Your task to perform on an android device: Show me a list of home improvement items on the Home Depot website. Image 0: 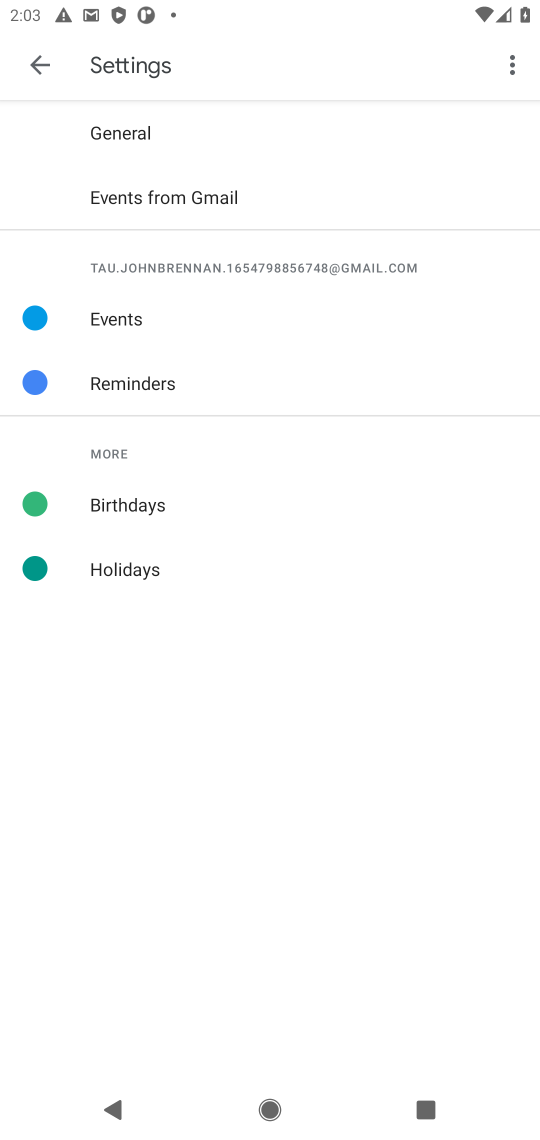
Step 0: press home button
Your task to perform on an android device: Show me a list of home improvement items on the Home Depot website. Image 1: 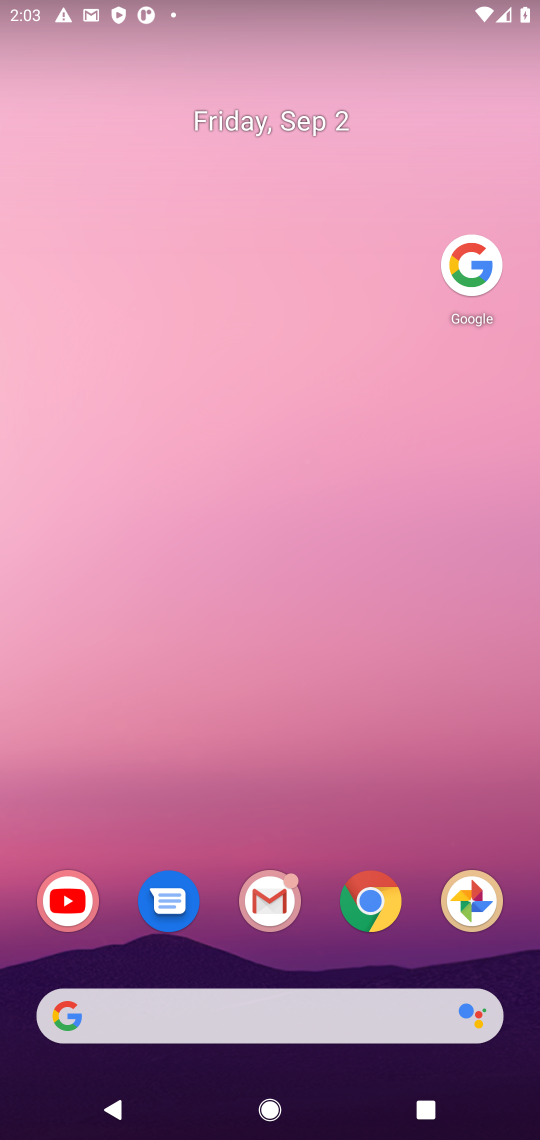
Step 1: drag from (213, 946) to (177, 314)
Your task to perform on an android device: Show me a list of home improvement items on the Home Depot website. Image 2: 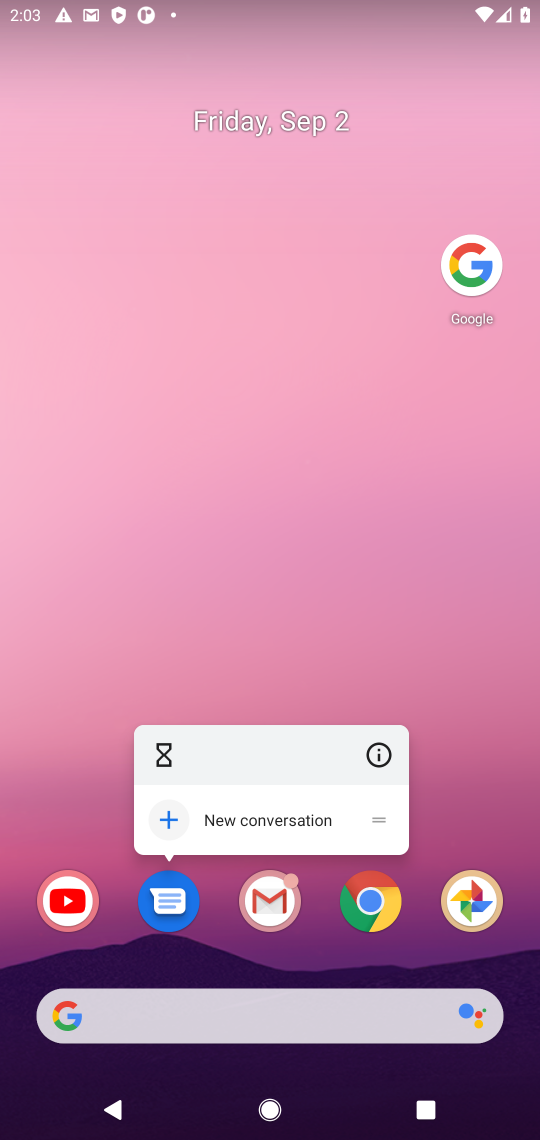
Step 2: click (480, 256)
Your task to perform on an android device: Show me a list of home improvement items on the Home Depot website. Image 3: 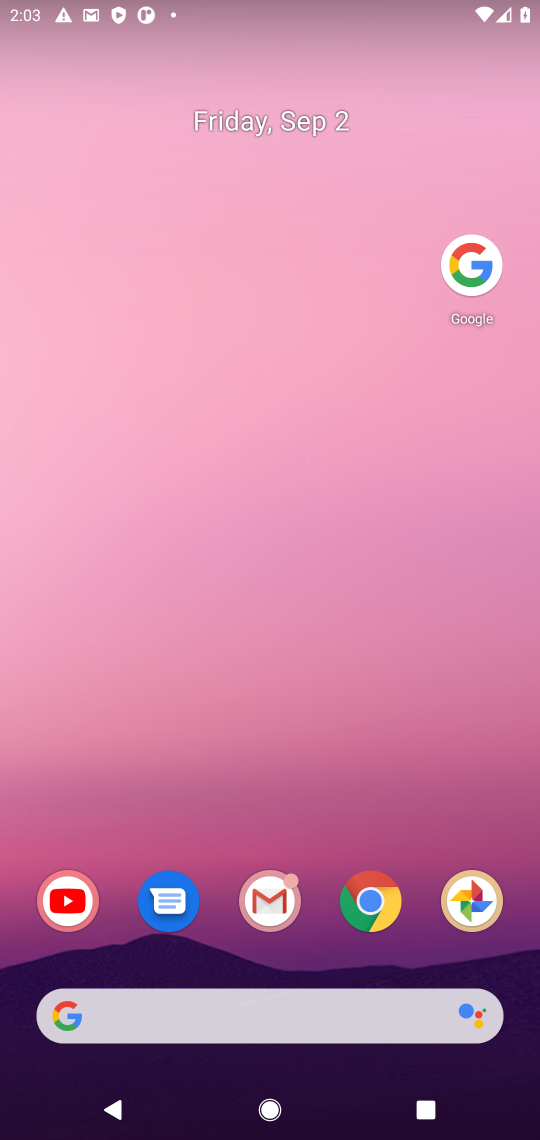
Step 3: click (472, 244)
Your task to perform on an android device: Show me a list of home improvement items on the Home Depot website. Image 4: 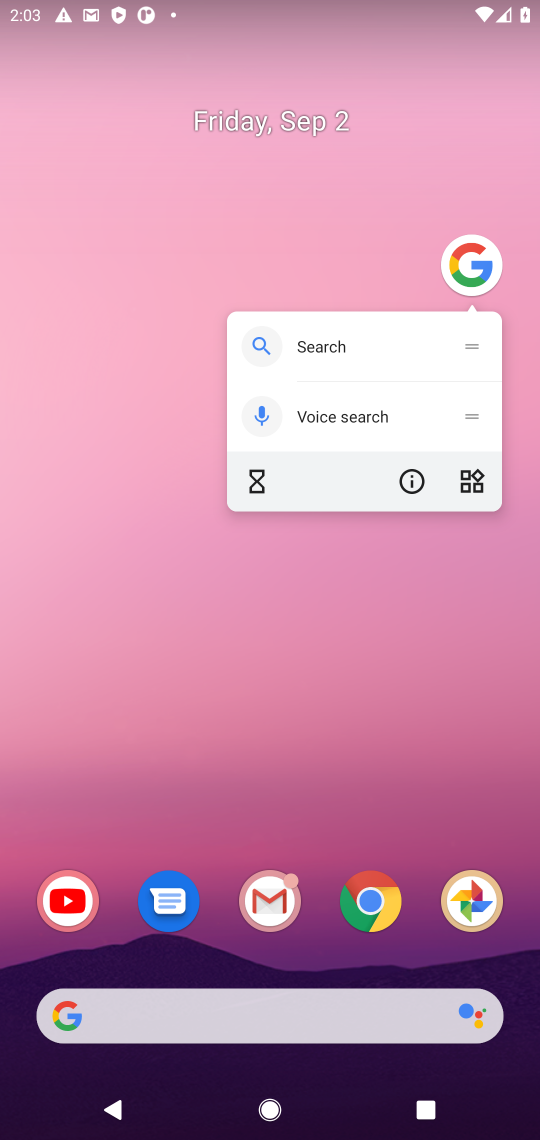
Step 4: click (472, 249)
Your task to perform on an android device: Show me a list of home improvement items on the Home Depot website. Image 5: 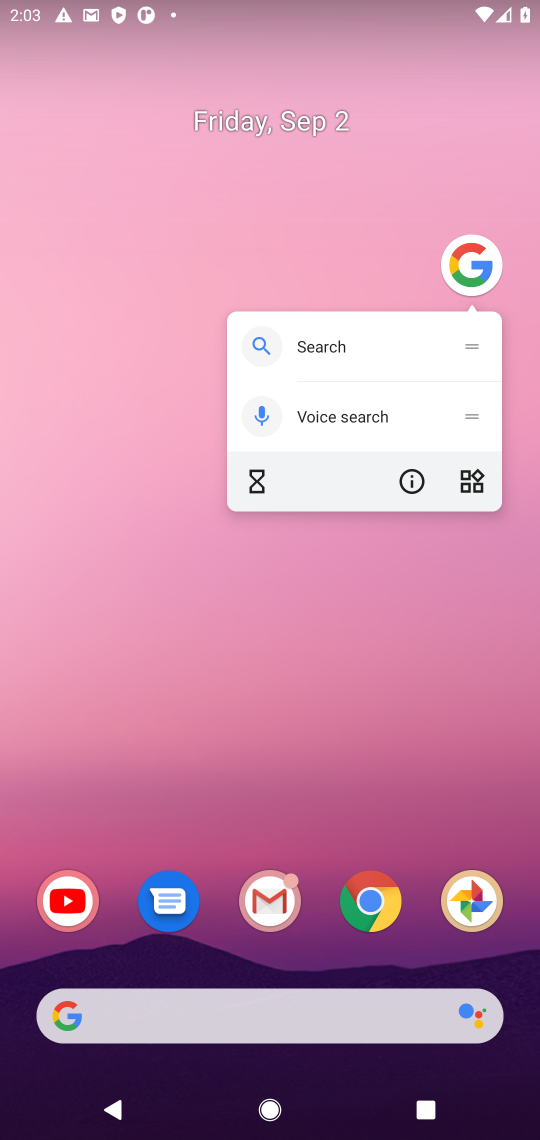
Step 5: click (466, 267)
Your task to perform on an android device: Show me a list of home improvement items on the Home Depot website. Image 6: 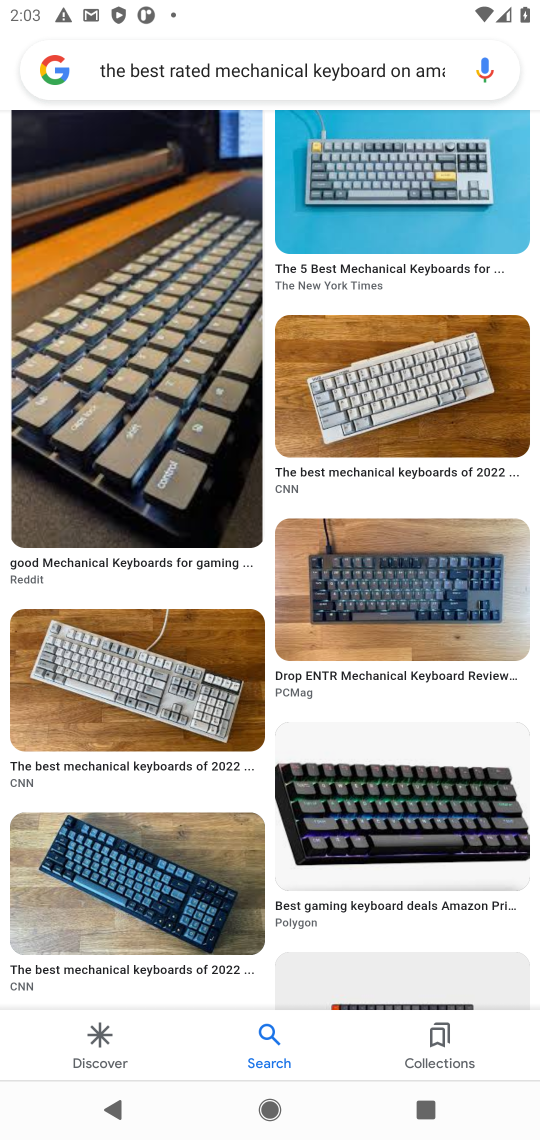
Step 6: click (466, 251)
Your task to perform on an android device: Show me a list of home improvement items on the Home Depot website. Image 7: 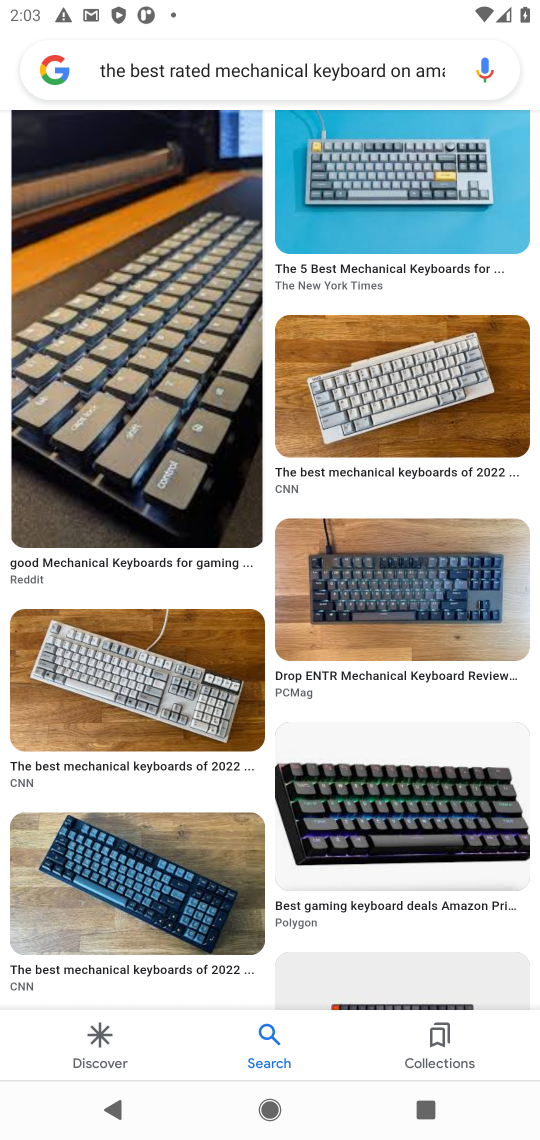
Step 7: click (427, 67)
Your task to perform on an android device: Show me a list of home improvement items on the Home Depot website. Image 8: 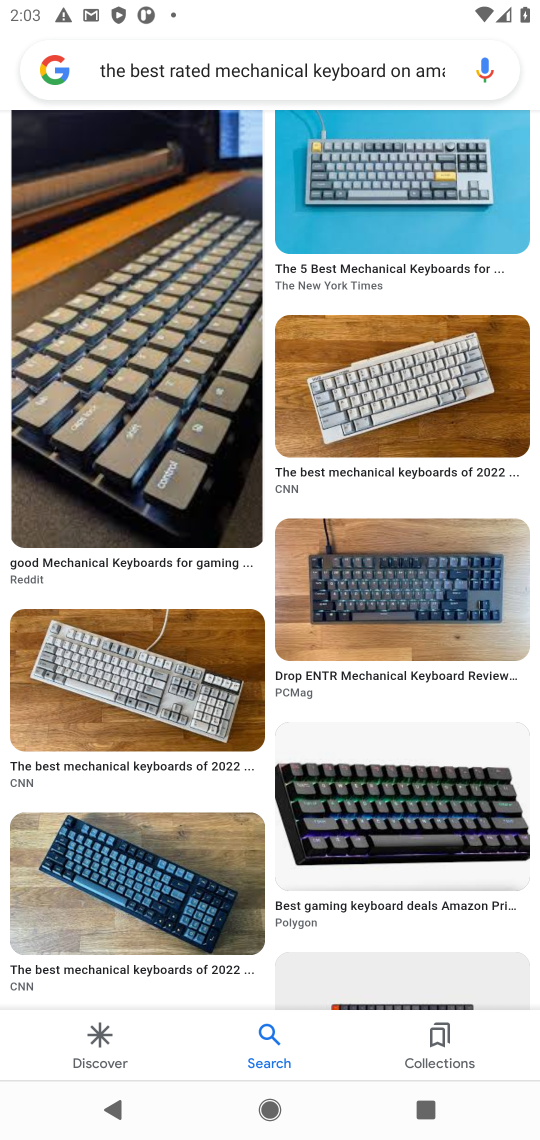
Step 8: click (427, 67)
Your task to perform on an android device: Show me a list of home improvement items on the Home Depot website. Image 9: 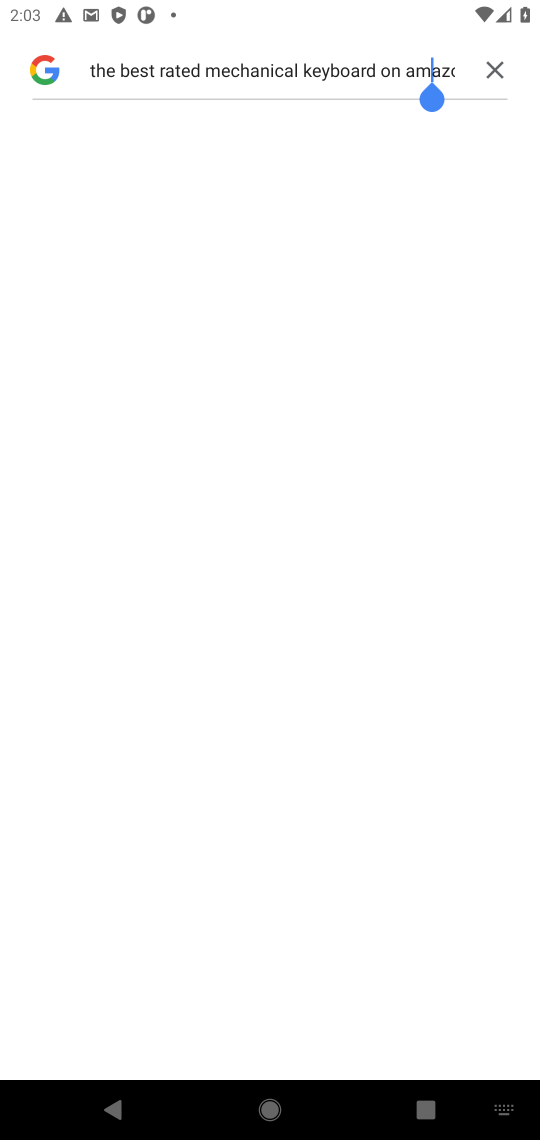
Step 9: click (503, 75)
Your task to perform on an android device: Show me a list of home improvement items on the Home Depot website. Image 10: 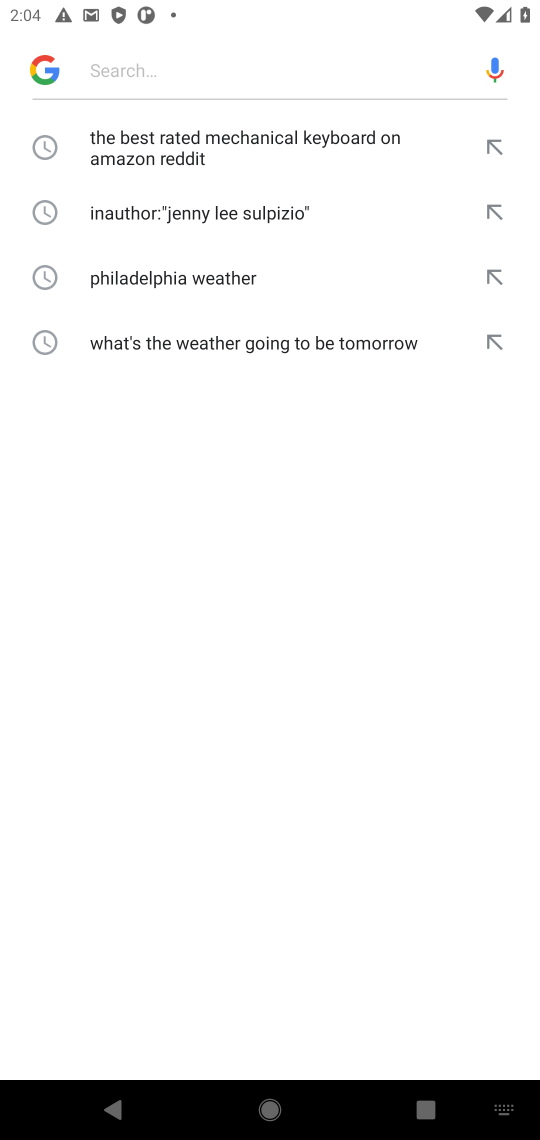
Step 10: click (221, 72)
Your task to perform on an android device: Show me a list of home improvement items on the Home Depot website. Image 11: 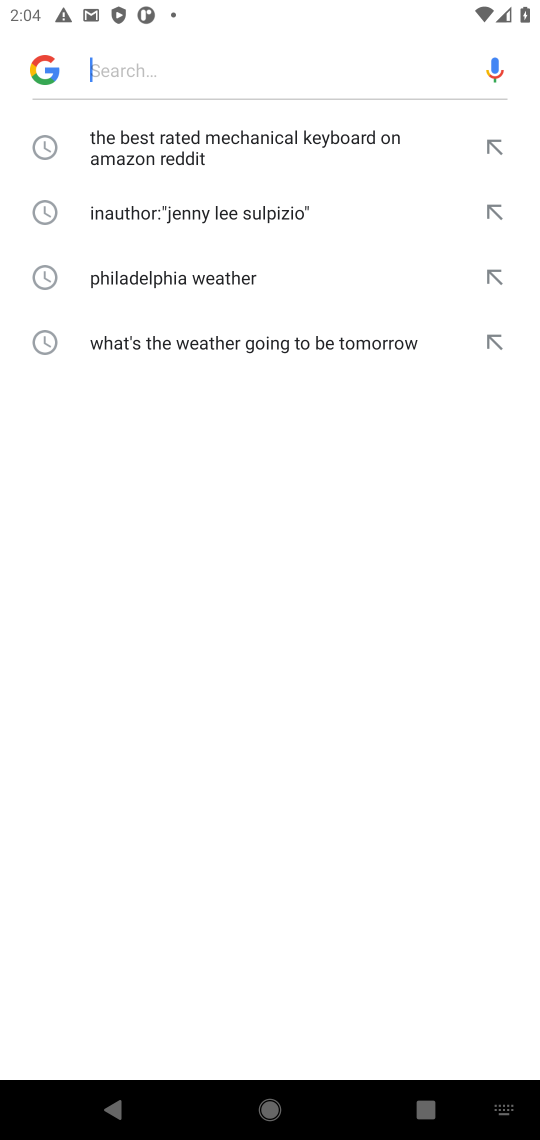
Step 11: type "a list of home improvement items on the Home Depot website "
Your task to perform on an android device: Show me a list of home improvement items on the Home Depot website. Image 12: 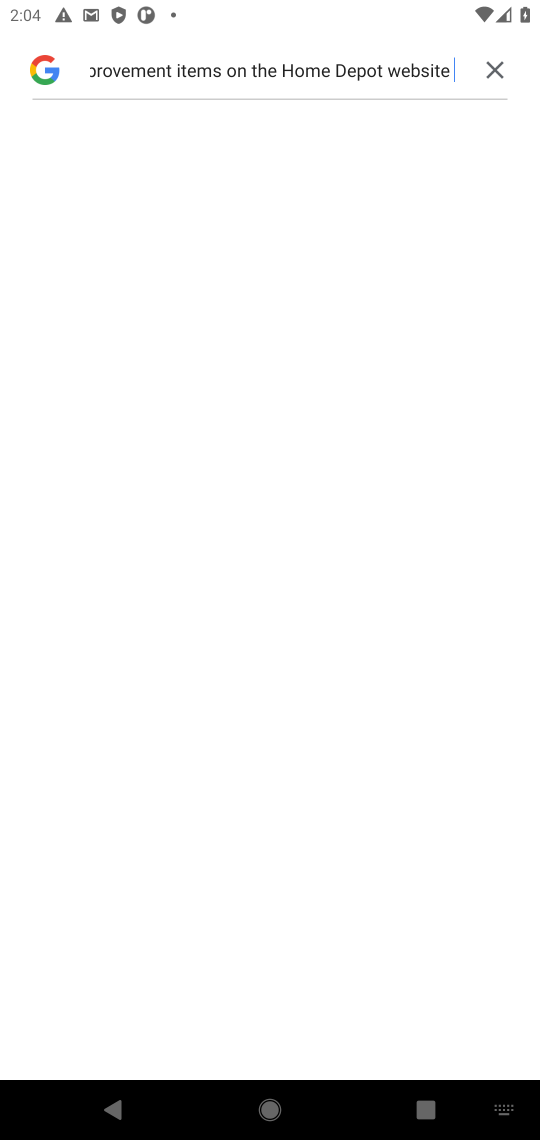
Step 12: click (330, 66)
Your task to perform on an android device: Show me a list of home improvement items on the Home Depot website. Image 13: 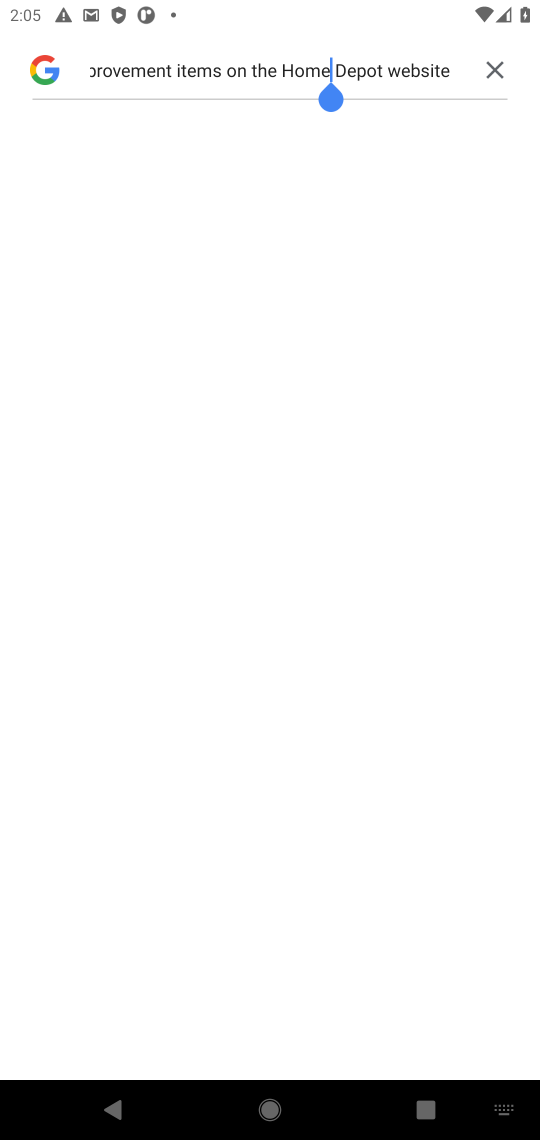
Step 13: click (456, 71)
Your task to perform on an android device: Show me a list of home improvement items on the Home Depot website. Image 14: 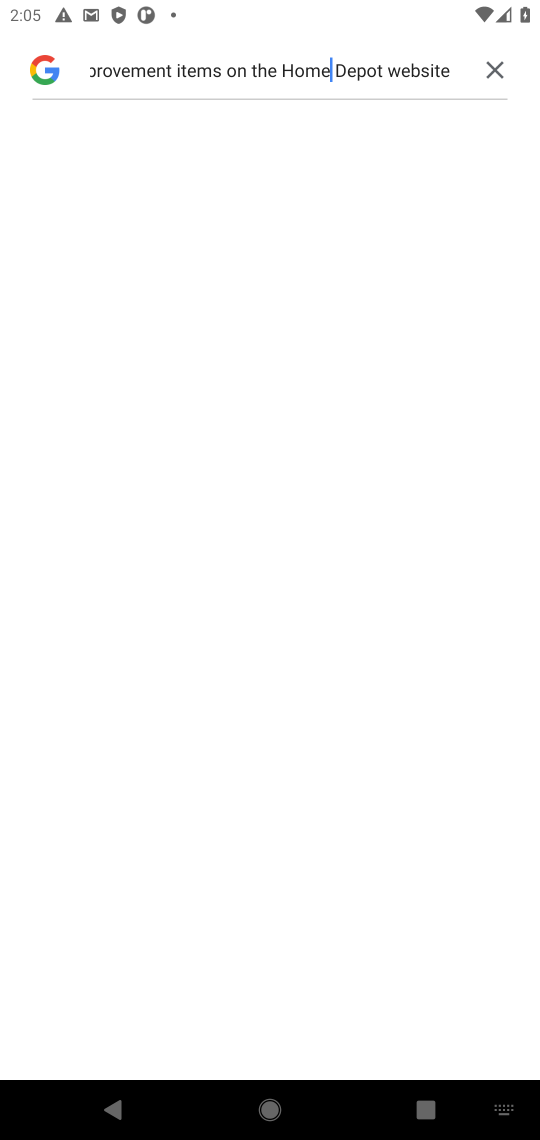
Step 14: click (177, 66)
Your task to perform on an android device: Show me a list of home improvement items on the Home Depot website. Image 15: 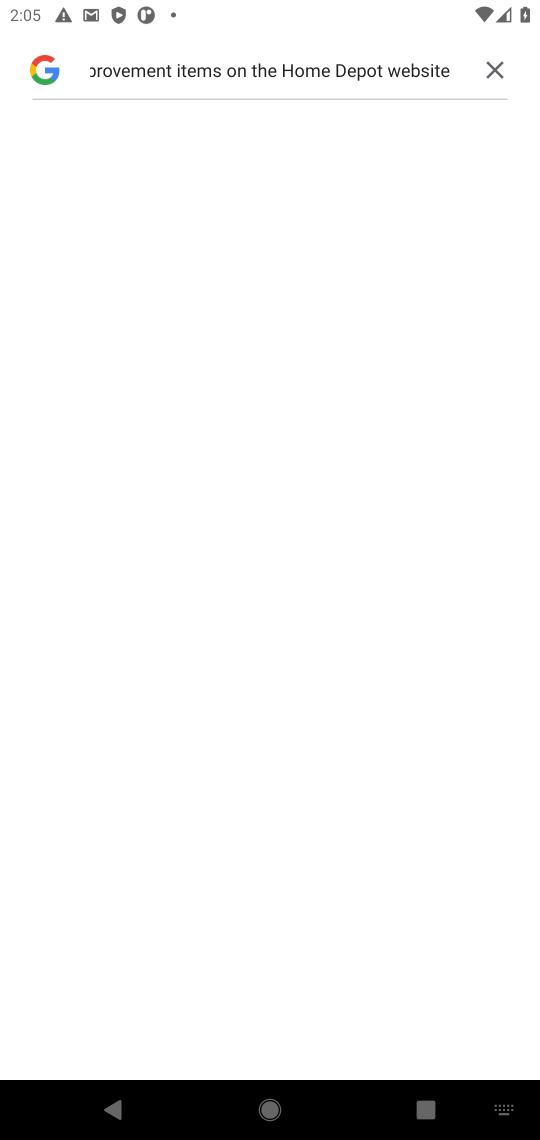
Step 15: click (461, 65)
Your task to perform on an android device: Show me a list of home improvement items on the Home Depot website. Image 16: 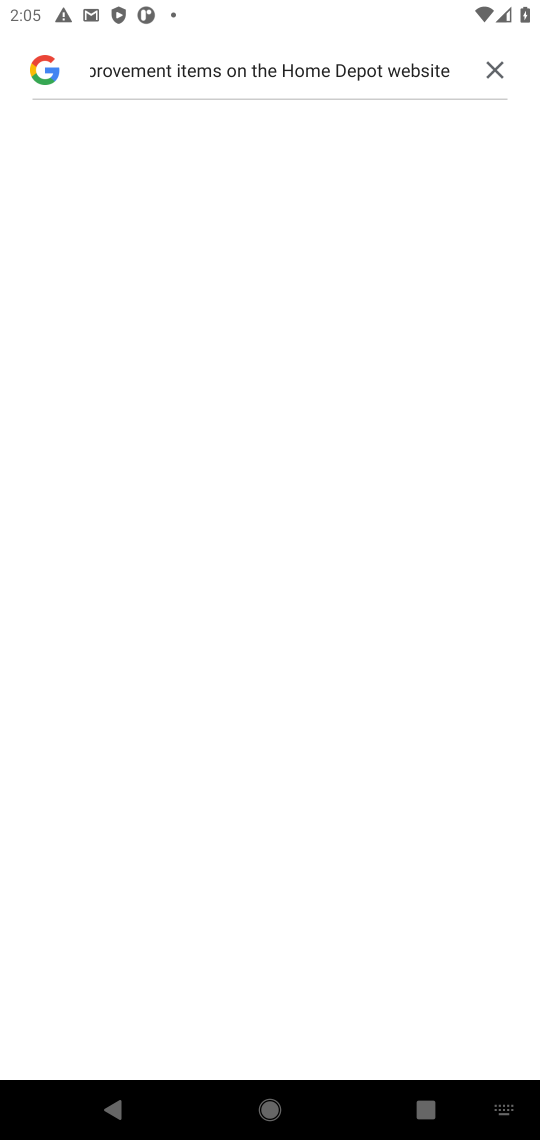
Step 16: click (444, 65)
Your task to perform on an android device: Show me a list of home improvement items on the Home Depot website. Image 17: 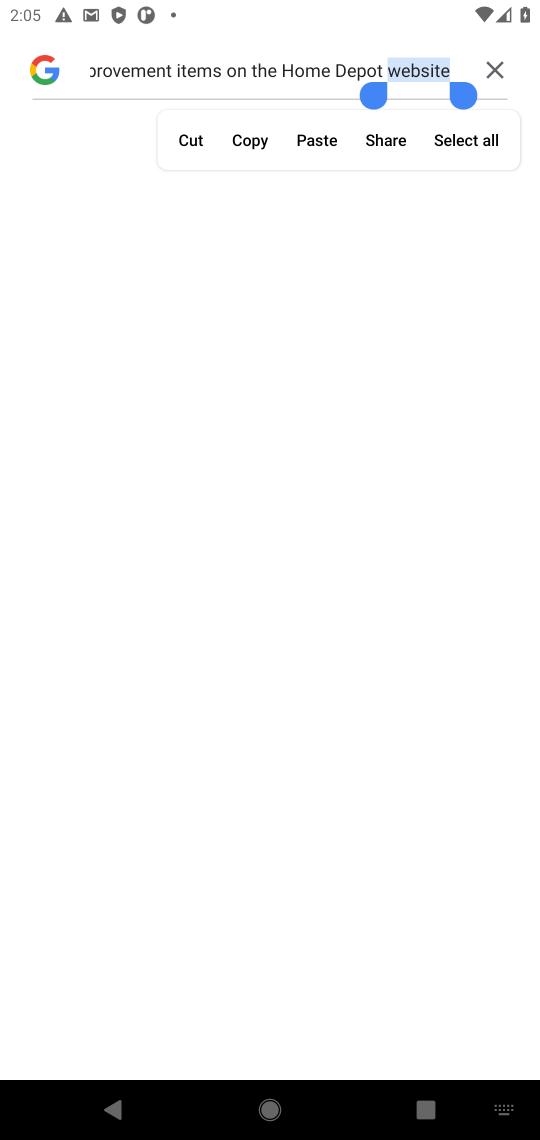
Step 17: click (504, 65)
Your task to perform on an android device: Show me a list of home improvement items on the Home Depot website. Image 18: 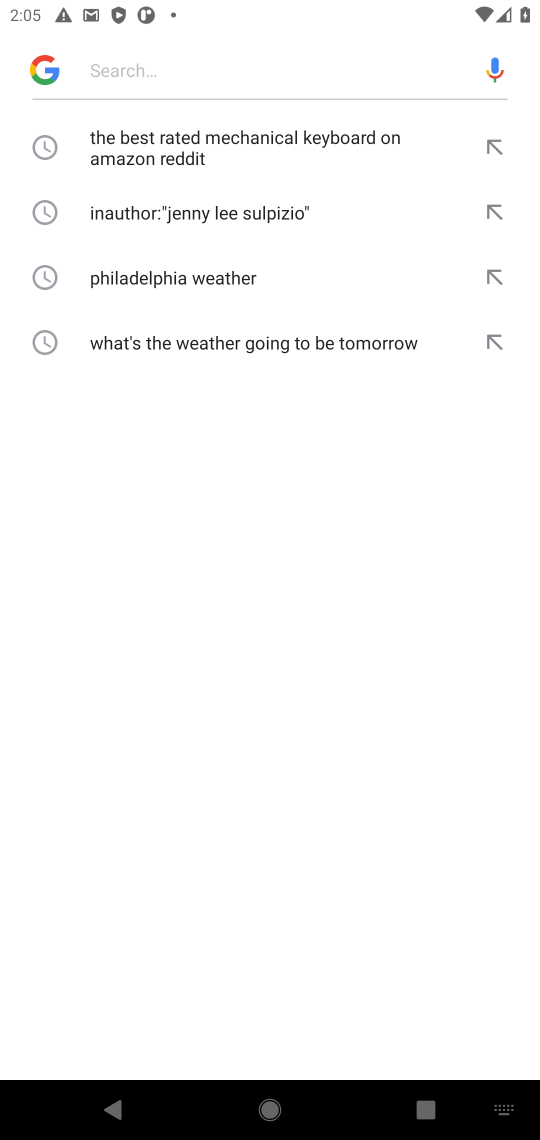
Step 18: click (283, 82)
Your task to perform on an android device: Show me a list of home improvement items on the Home Depot website. Image 19: 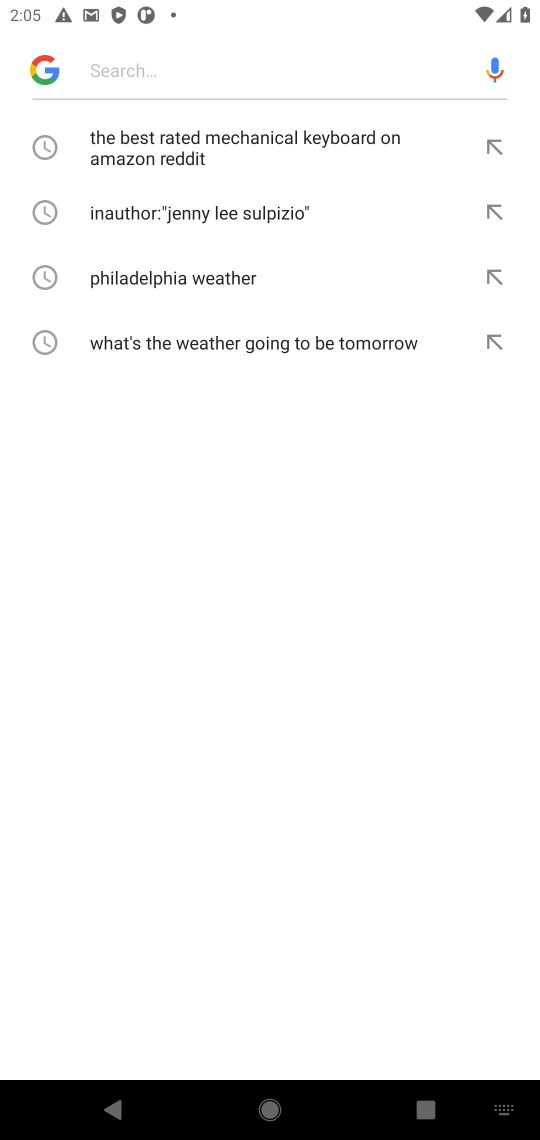
Step 19: type "a list of home improvement items on the Home Depot website "
Your task to perform on an android device: Show me a list of home improvement items on the Home Depot website. Image 20: 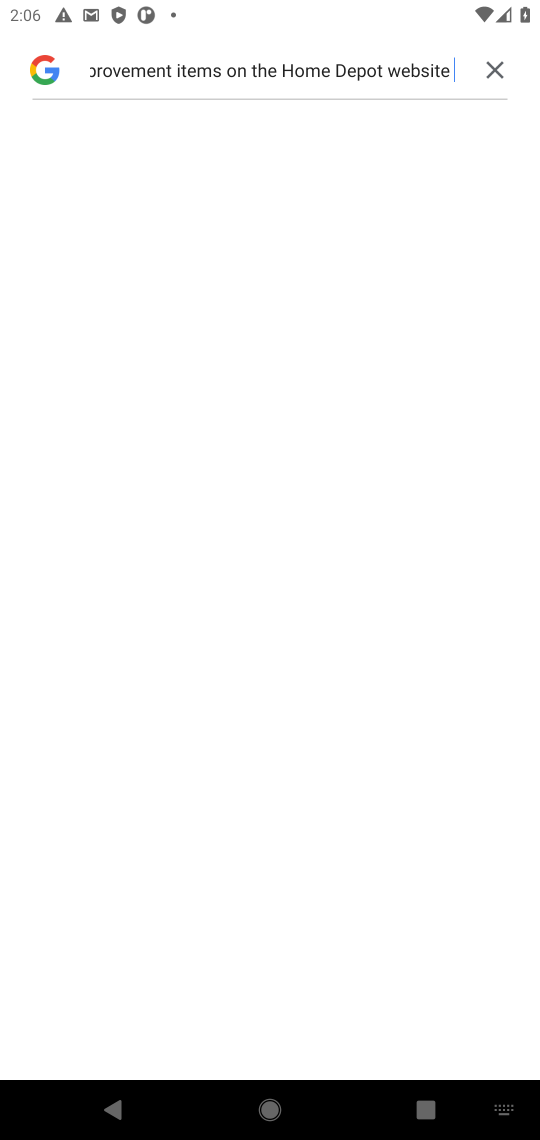
Step 20: click (198, 64)
Your task to perform on an android device: Show me a list of home improvement items on the Home Depot website. Image 21: 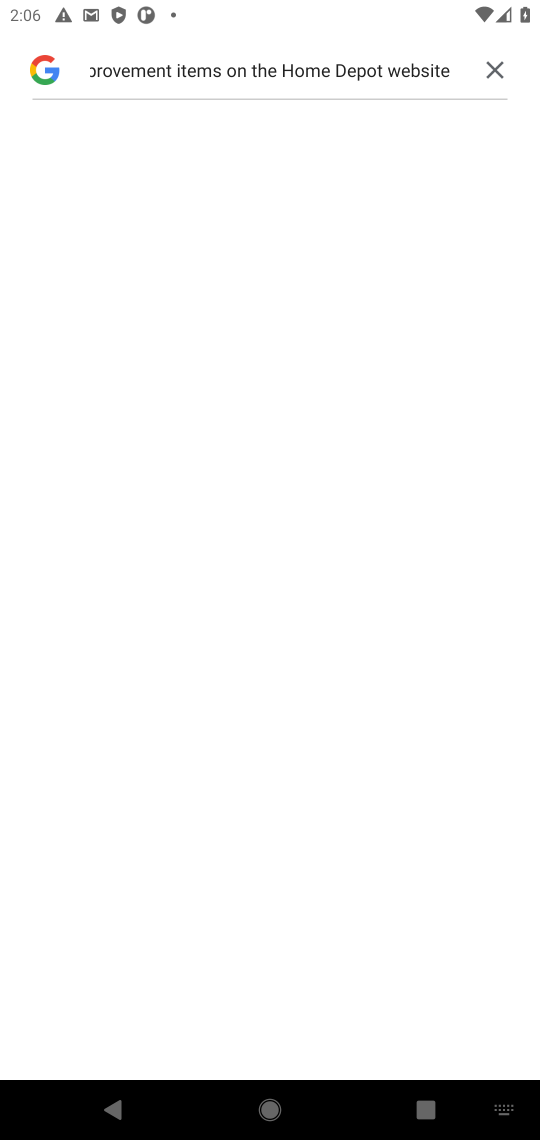
Step 21: click (198, 64)
Your task to perform on an android device: Show me a list of home improvement items on the Home Depot website. Image 22: 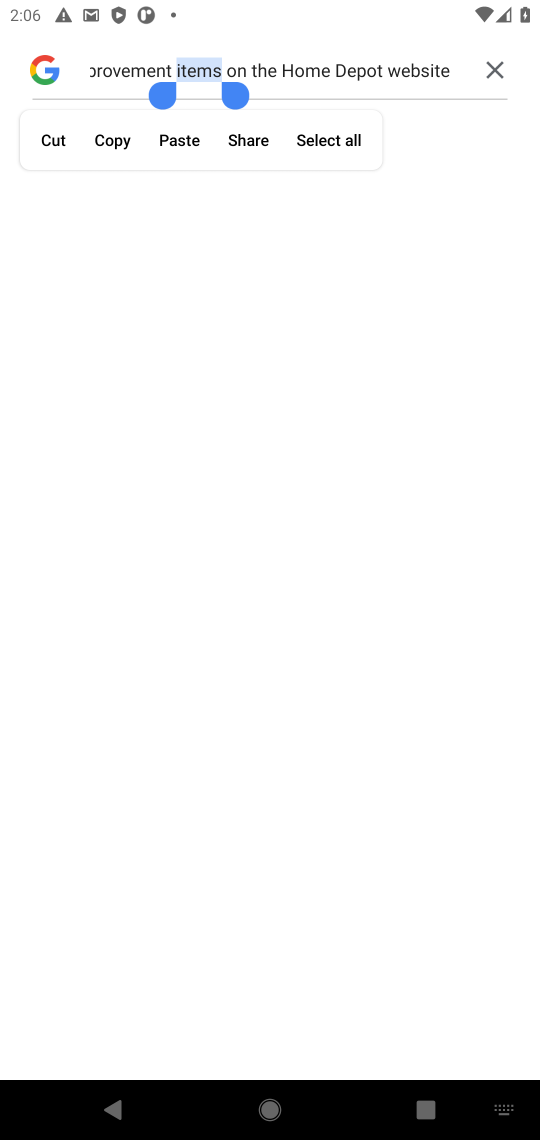
Step 22: click (379, 247)
Your task to perform on an android device: Show me a list of home improvement items on the Home Depot website. Image 23: 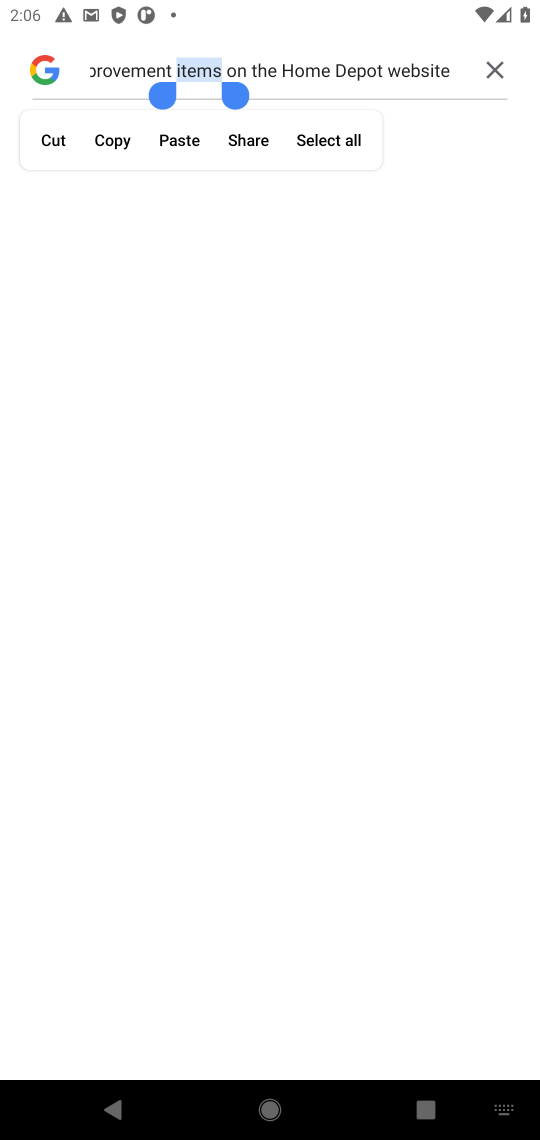
Step 23: task complete